Your task to perform on an android device: Open settings Image 0: 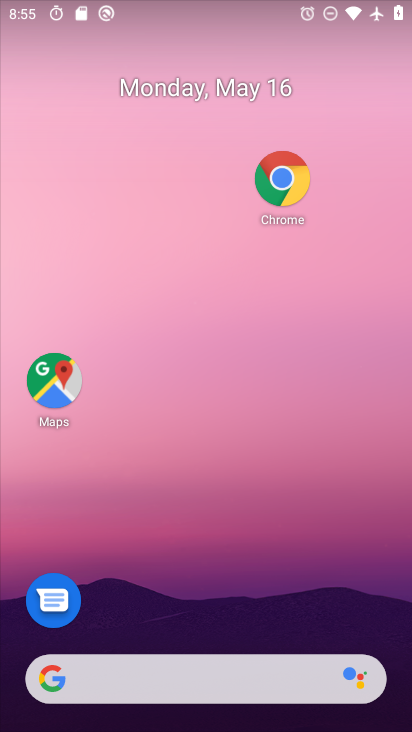
Step 0: drag from (239, 439) to (317, 145)
Your task to perform on an android device: Open settings Image 1: 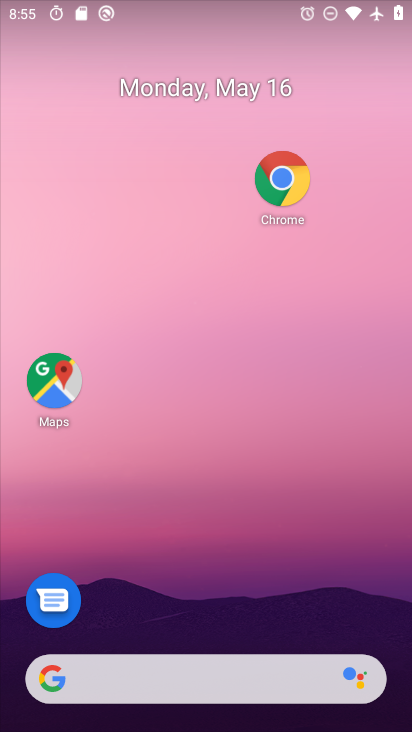
Step 1: drag from (191, 681) to (307, 36)
Your task to perform on an android device: Open settings Image 2: 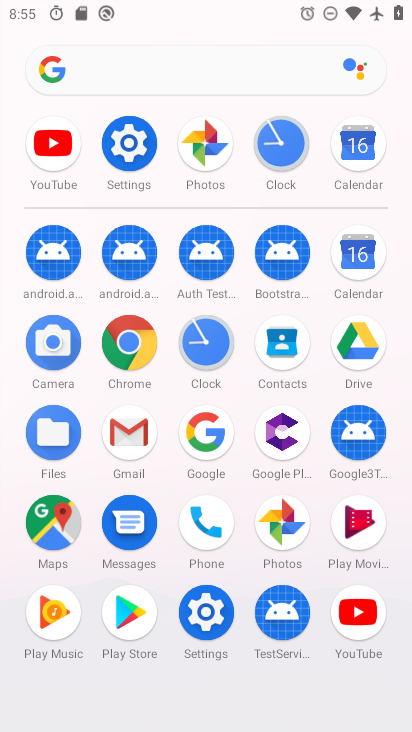
Step 2: click (128, 150)
Your task to perform on an android device: Open settings Image 3: 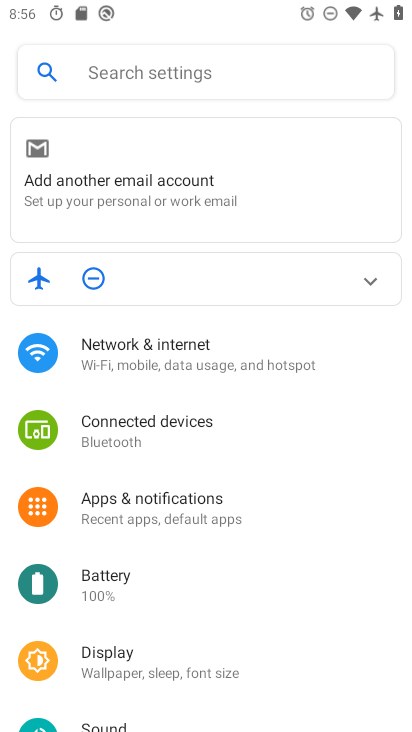
Step 3: task complete